Your task to perform on an android device: Open Youtube and go to "Your channel" Image 0: 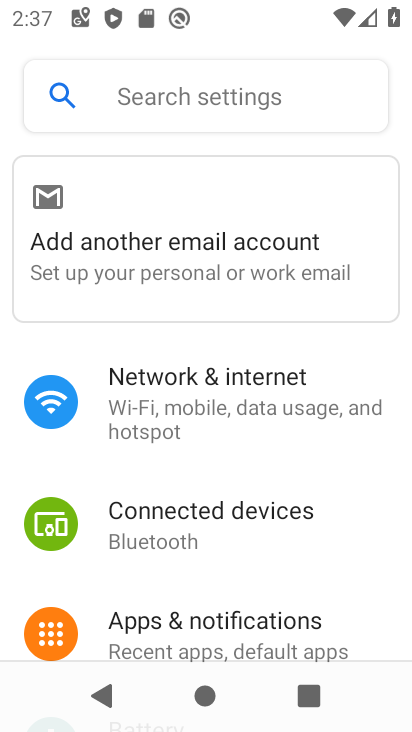
Step 0: press home button
Your task to perform on an android device: Open Youtube and go to "Your channel" Image 1: 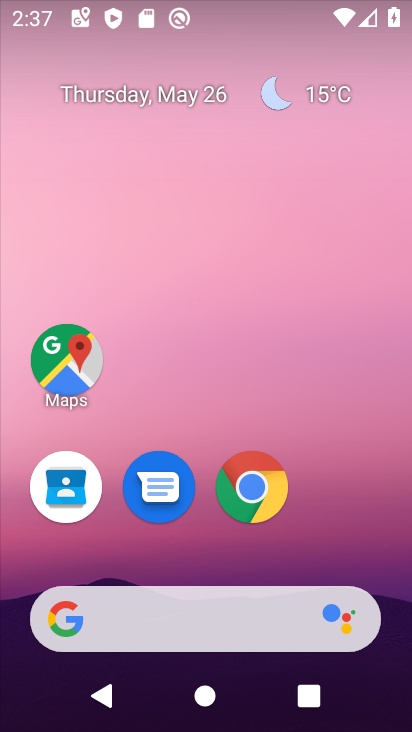
Step 1: drag from (205, 555) to (226, 190)
Your task to perform on an android device: Open Youtube and go to "Your channel" Image 2: 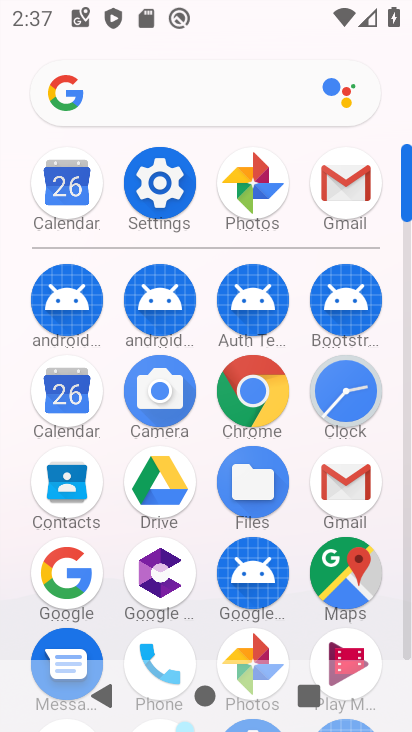
Step 2: drag from (254, 547) to (304, 170)
Your task to perform on an android device: Open Youtube and go to "Your channel" Image 3: 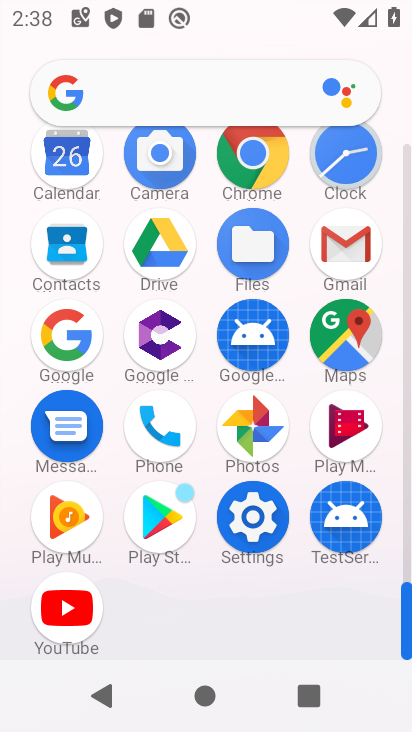
Step 3: click (63, 581)
Your task to perform on an android device: Open Youtube and go to "Your channel" Image 4: 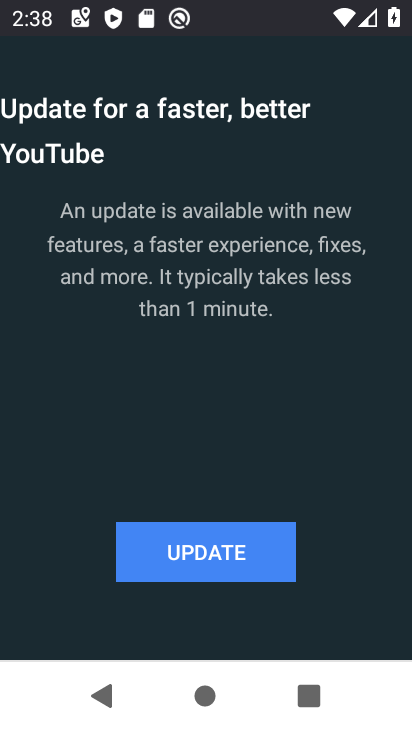
Step 4: click (141, 565)
Your task to perform on an android device: Open Youtube and go to "Your channel" Image 5: 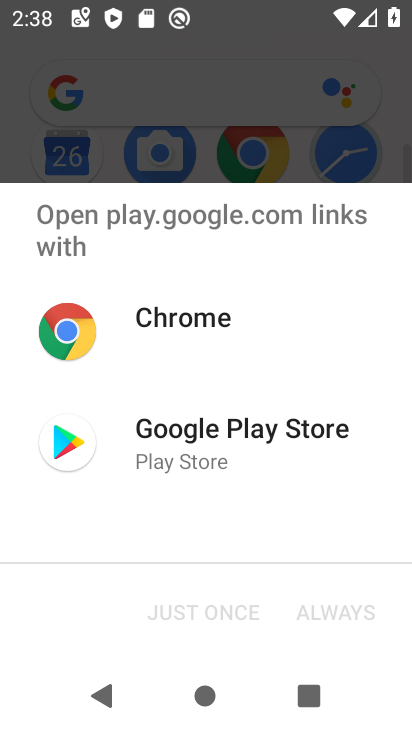
Step 5: click (207, 452)
Your task to perform on an android device: Open Youtube and go to "Your channel" Image 6: 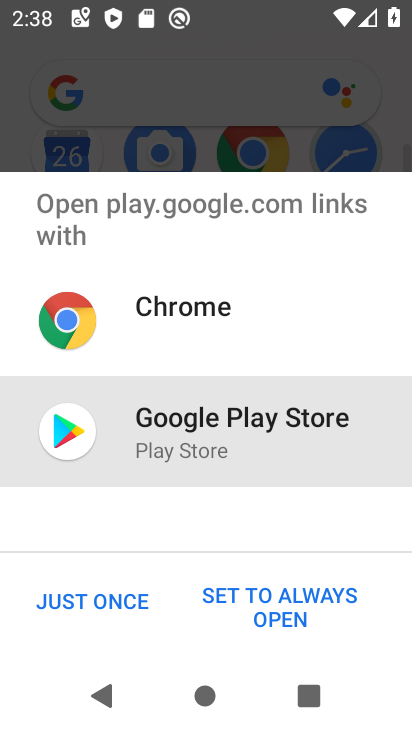
Step 6: click (141, 588)
Your task to perform on an android device: Open Youtube and go to "Your channel" Image 7: 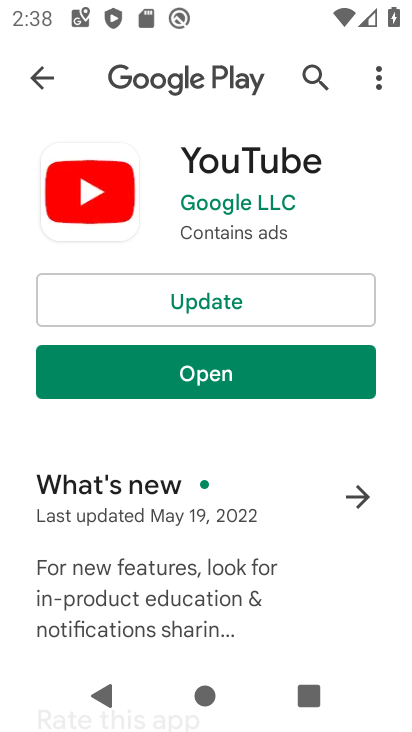
Step 7: click (211, 376)
Your task to perform on an android device: Open Youtube and go to "Your channel" Image 8: 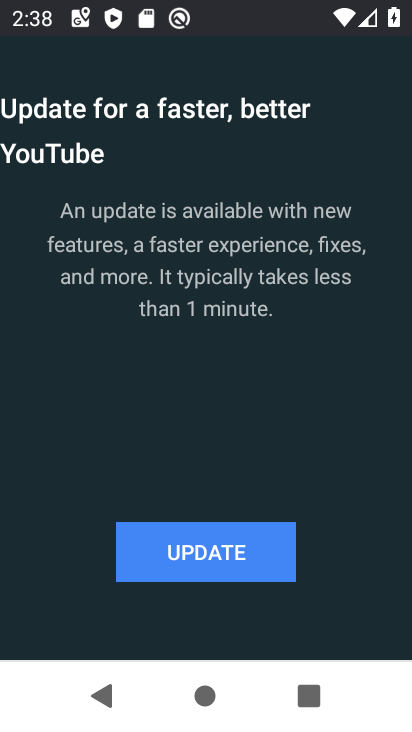
Step 8: click (216, 553)
Your task to perform on an android device: Open Youtube and go to "Your channel" Image 9: 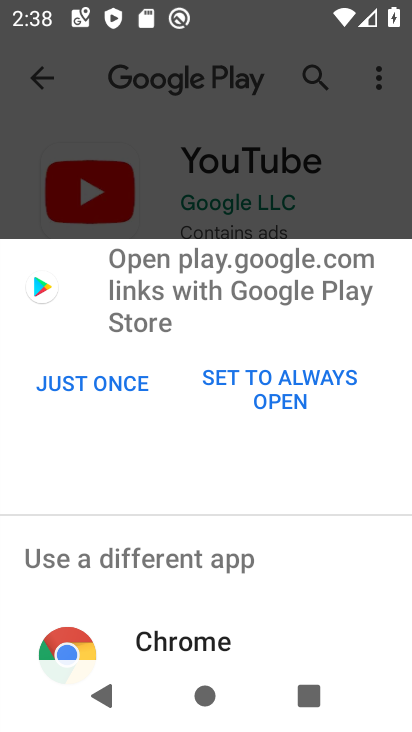
Step 9: click (122, 387)
Your task to perform on an android device: Open Youtube and go to "Your channel" Image 10: 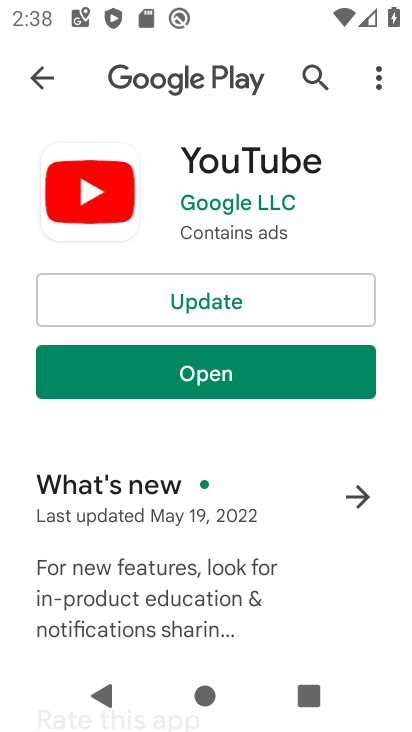
Step 10: click (230, 313)
Your task to perform on an android device: Open Youtube and go to "Your channel" Image 11: 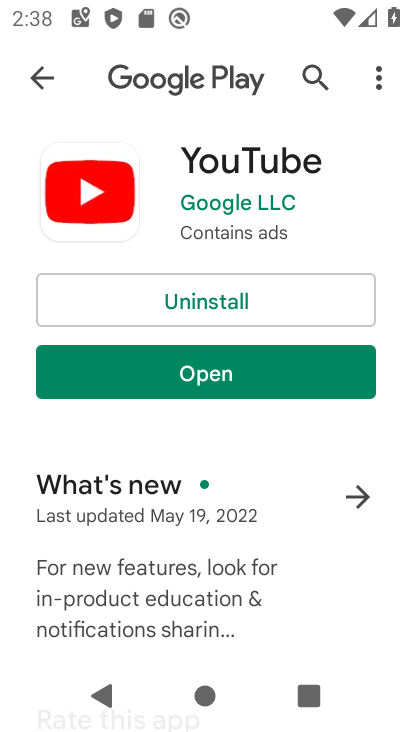
Step 11: click (192, 390)
Your task to perform on an android device: Open Youtube and go to "Your channel" Image 12: 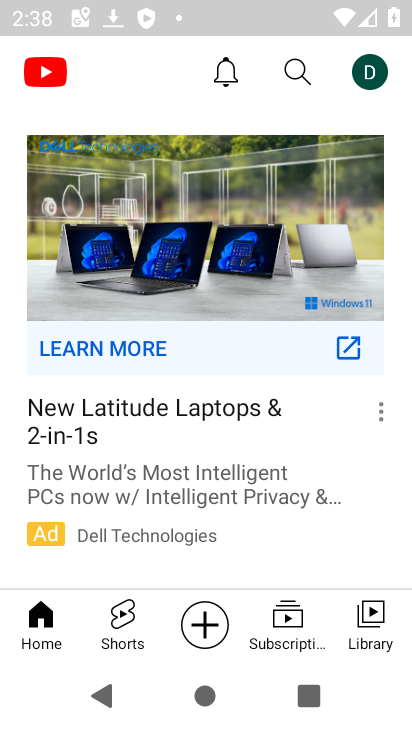
Step 12: click (381, 79)
Your task to perform on an android device: Open Youtube and go to "Your channel" Image 13: 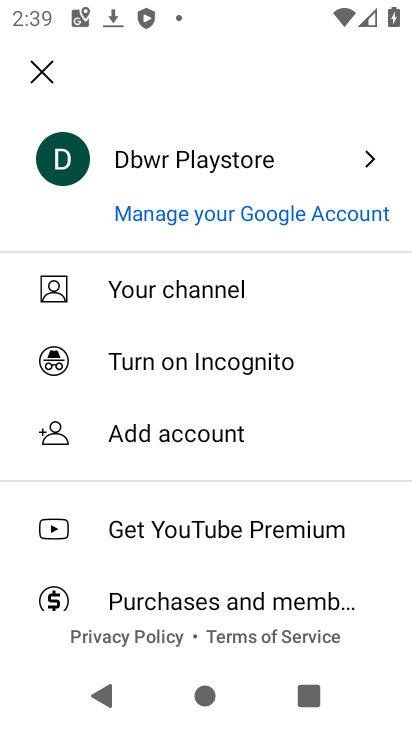
Step 13: click (192, 291)
Your task to perform on an android device: Open Youtube and go to "Your channel" Image 14: 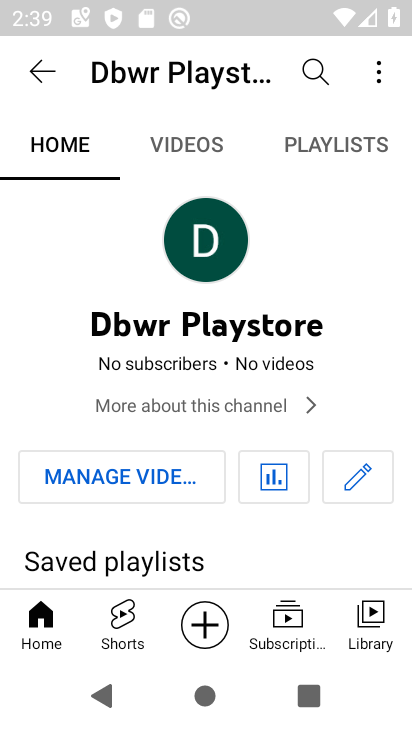
Step 14: task complete